Your task to perform on an android device: move an email to a new category in the gmail app Image 0: 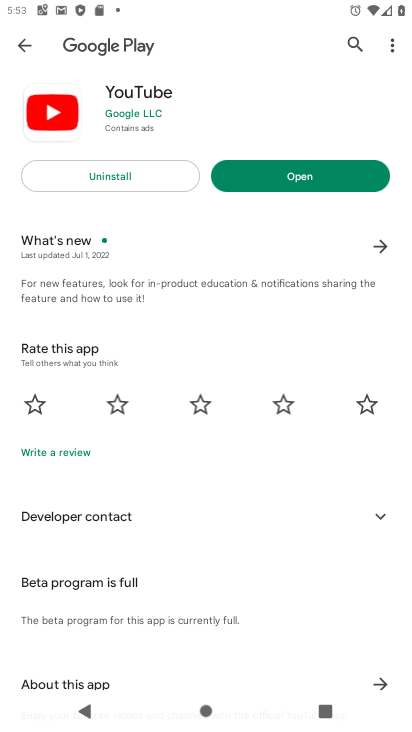
Step 0: press home button
Your task to perform on an android device: move an email to a new category in the gmail app Image 1: 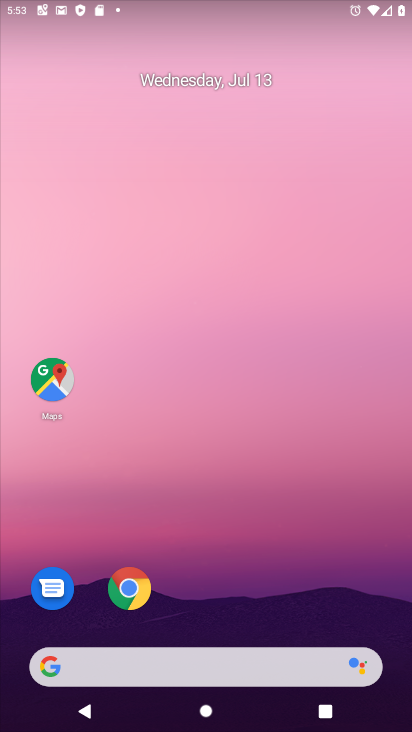
Step 1: drag from (191, 565) to (163, 164)
Your task to perform on an android device: move an email to a new category in the gmail app Image 2: 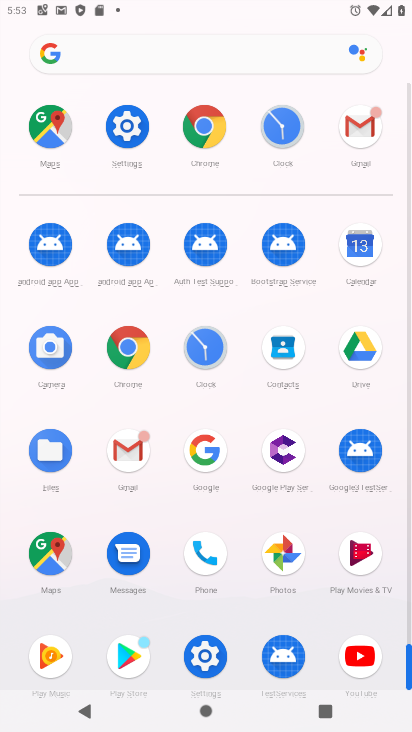
Step 2: click (359, 125)
Your task to perform on an android device: move an email to a new category in the gmail app Image 3: 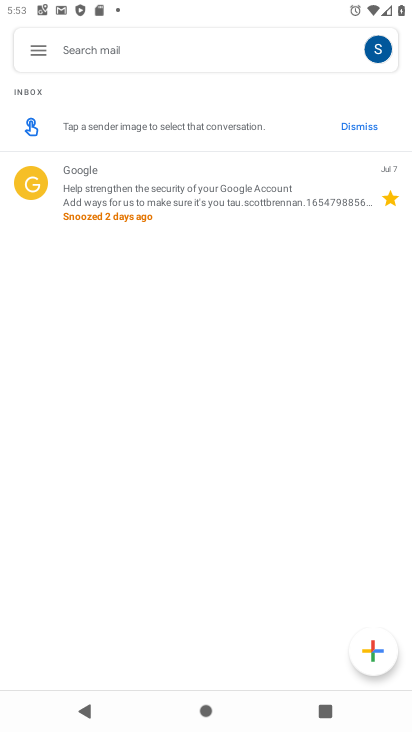
Step 3: click (201, 189)
Your task to perform on an android device: move an email to a new category in the gmail app Image 4: 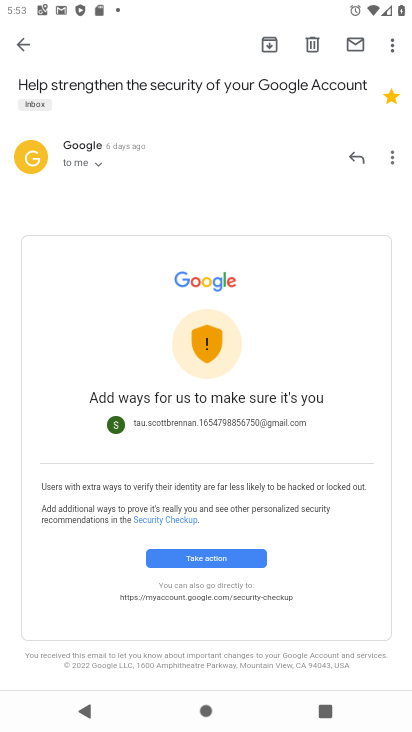
Step 4: click (390, 157)
Your task to perform on an android device: move an email to a new category in the gmail app Image 5: 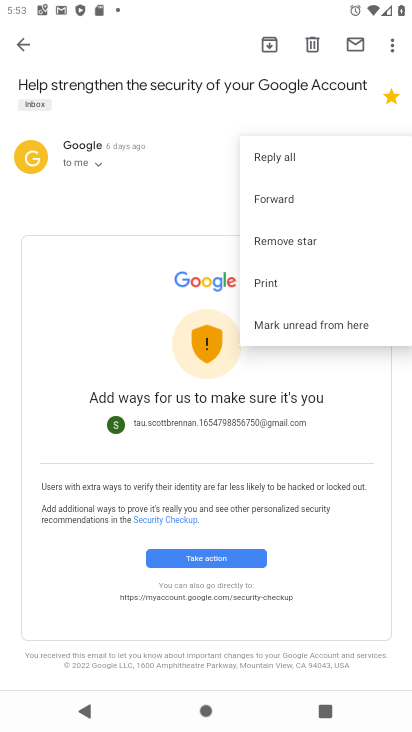
Step 5: click (394, 46)
Your task to perform on an android device: move an email to a new category in the gmail app Image 6: 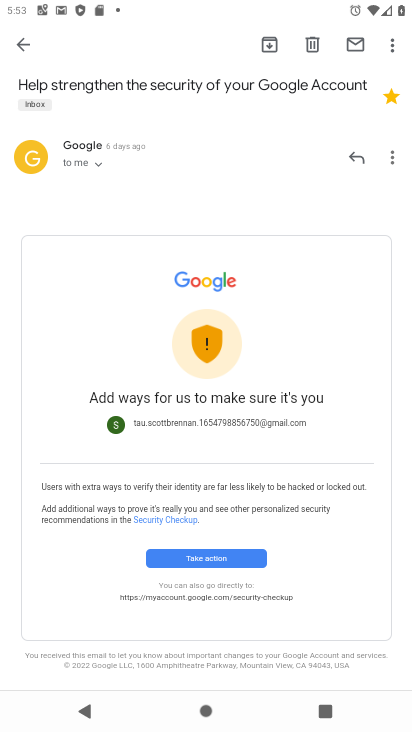
Step 6: click (394, 46)
Your task to perform on an android device: move an email to a new category in the gmail app Image 7: 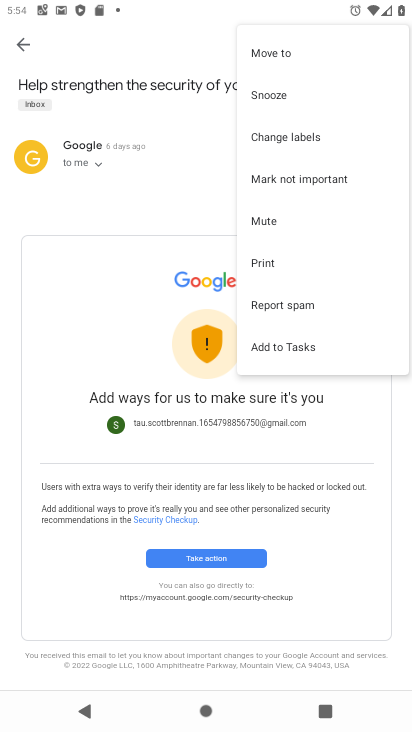
Step 7: click (275, 52)
Your task to perform on an android device: move an email to a new category in the gmail app Image 8: 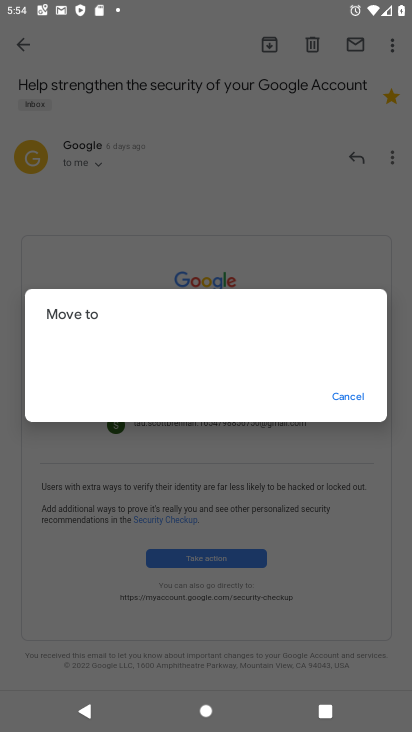
Step 8: click (336, 364)
Your task to perform on an android device: move an email to a new category in the gmail app Image 9: 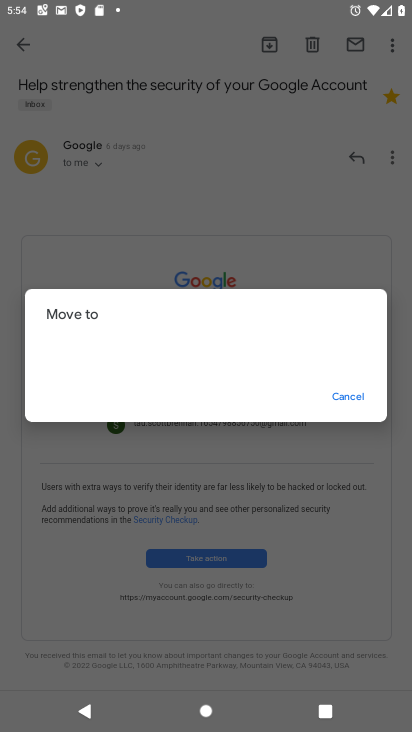
Step 9: task complete